Your task to perform on an android device: check google app version Image 0: 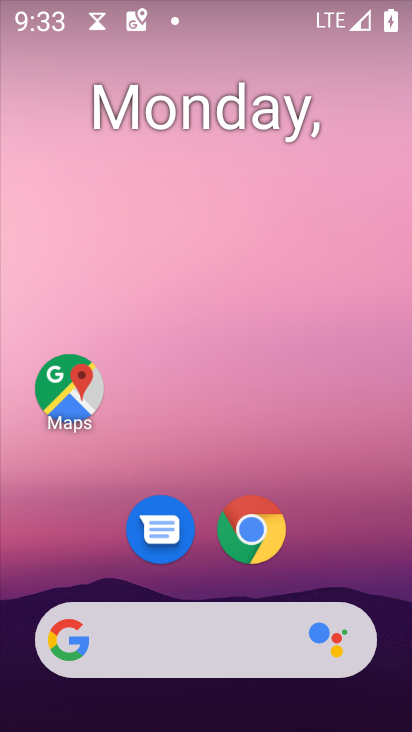
Step 0: drag from (292, 687) to (199, 115)
Your task to perform on an android device: check google app version Image 1: 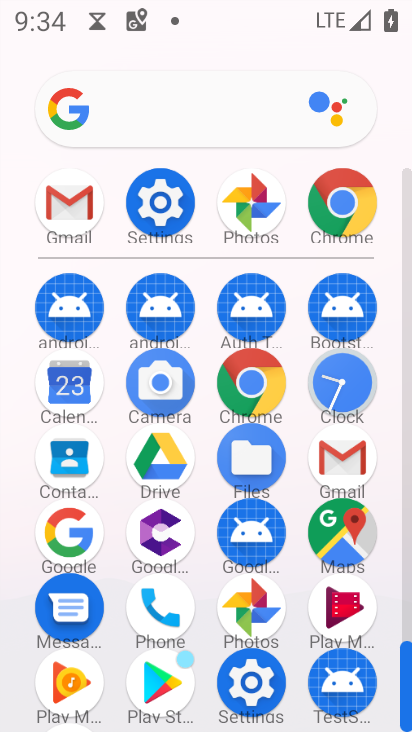
Step 1: click (76, 544)
Your task to perform on an android device: check google app version Image 2: 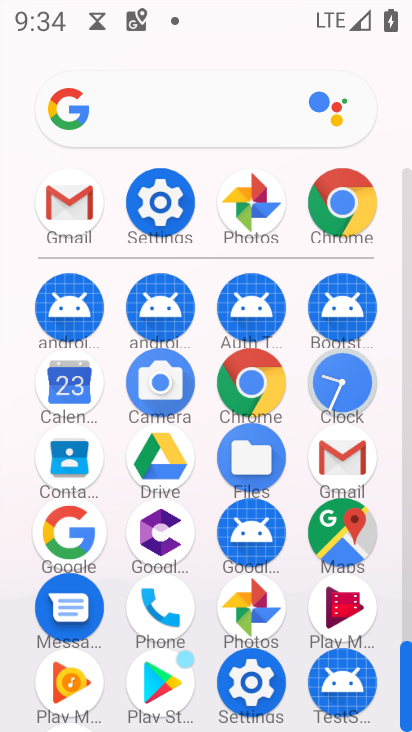
Step 2: click (76, 543)
Your task to perform on an android device: check google app version Image 3: 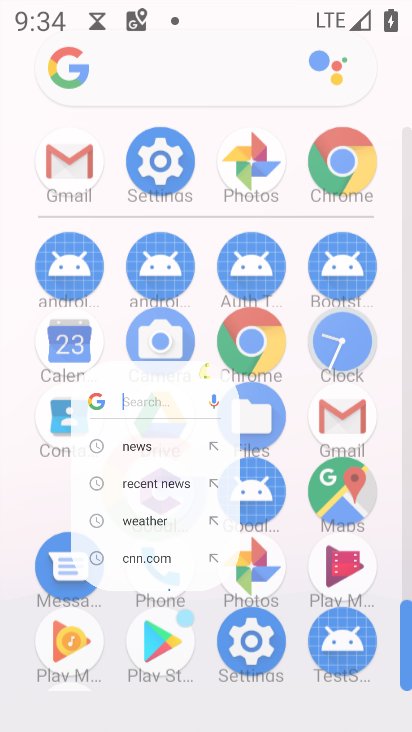
Step 3: click (76, 543)
Your task to perform on an android device: check google app version Image 4: 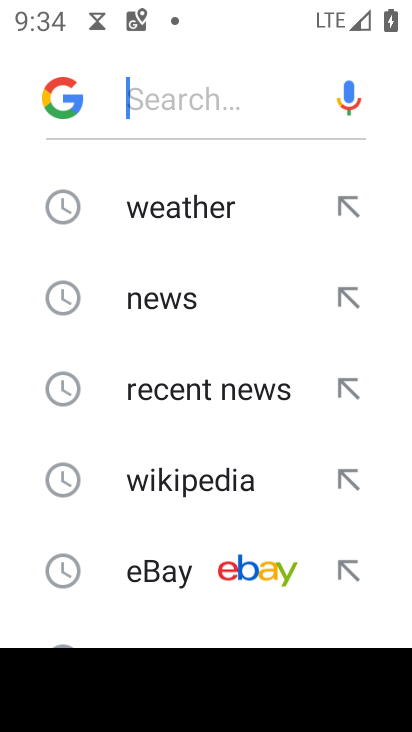
Step 4: press back button
Your task to perform on an android device: check google app version Image 5: 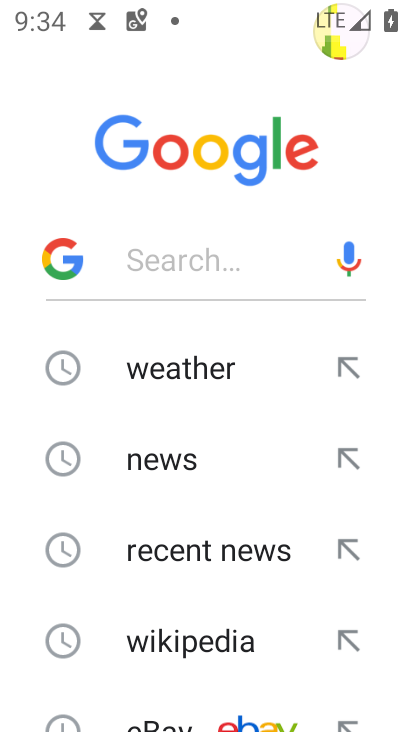
Step 5: press home button
Your task to perform on an android device: check google app version Image 6: 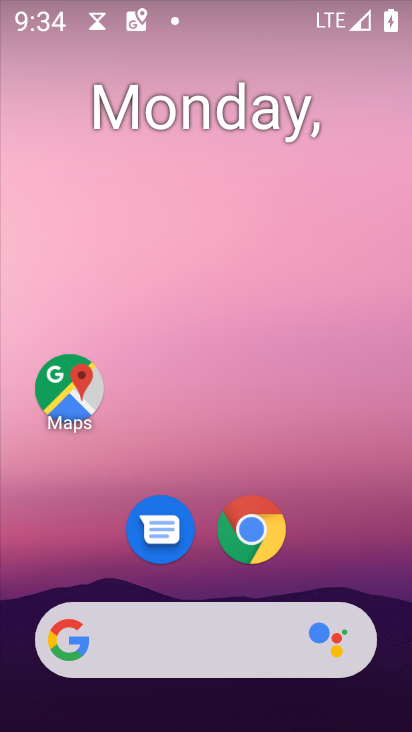
Step 6: drag from (231, 664) to (150, 156)
Your task to perform on an android device: check google app version Image 7: 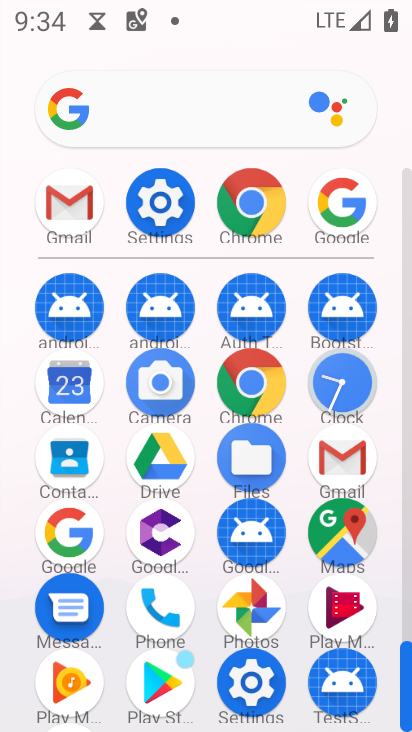
Step 7: click (63, 542)
Your task to perform on an android device: check google app version Image 8: 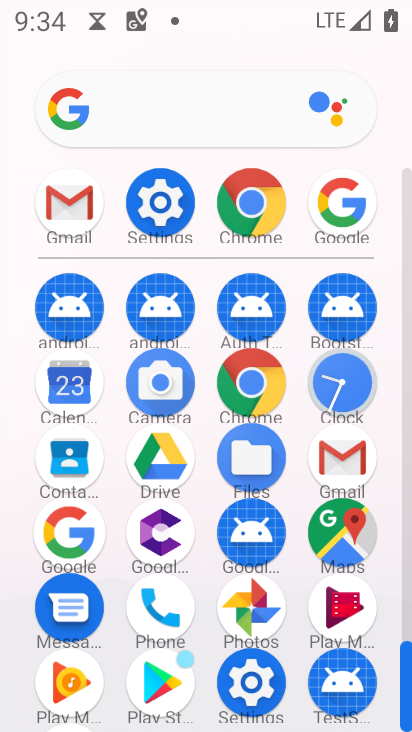
Step 8: click (67, 537)
Your task to perform on an android device: check google app version Image 9: 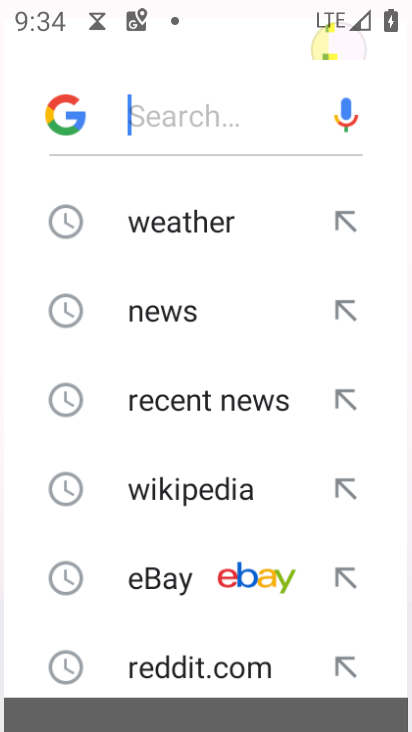
Step 9: click (70, 534)
Your task to perform on an android device: check google app version Image 10: 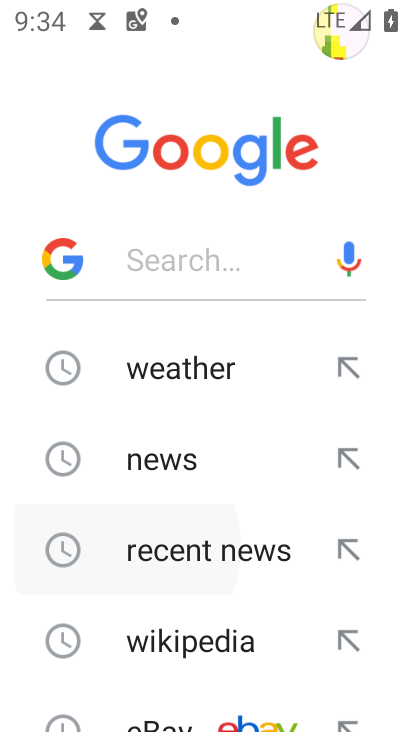
Step 10: click (71, 535)
Your task to perform on an android device: check google app version Image 11: 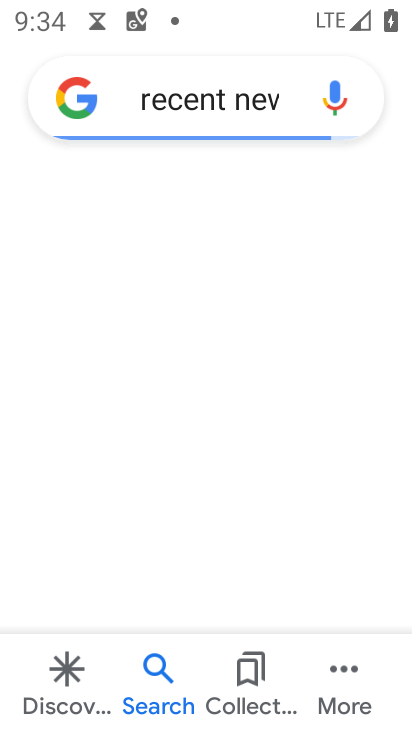
Step 11: click (342, 664)
Your task to perform on an android device: check google app version Image 12: 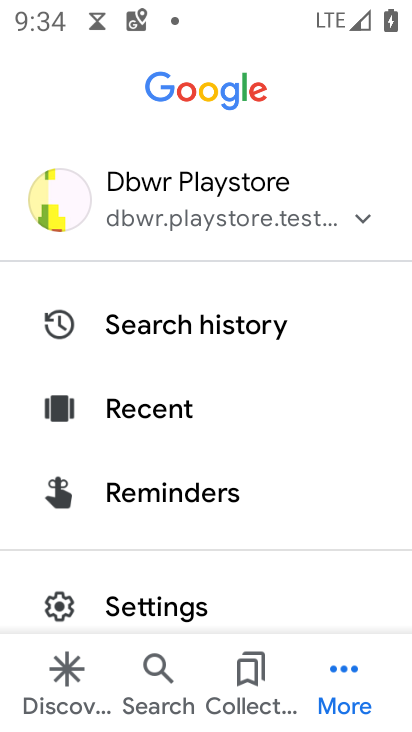
Step 12: click (343, 661)
Your task to perform on an android device: check google app version Image 13: 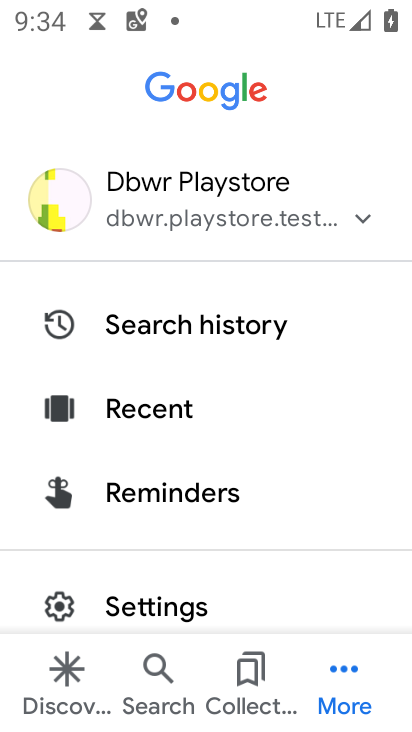
Step 13: drag from (180, 551) to (135, 139)
Your task to perform on an android device: check google app version Image 14: 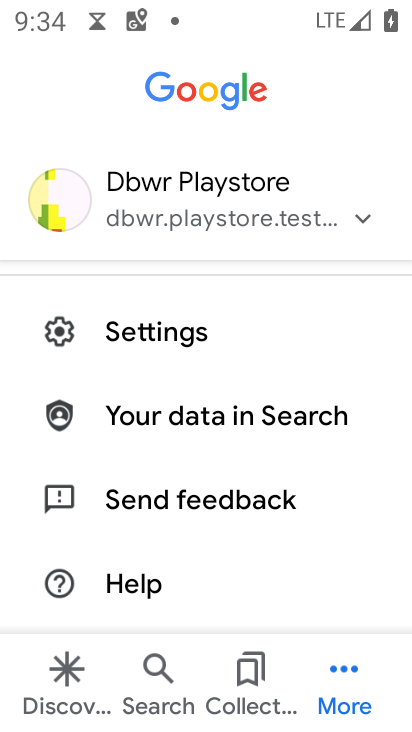
Step 14: drag from (246, 548) to (232, 279)
Your task to perform on an android device: check google app version Image 15: 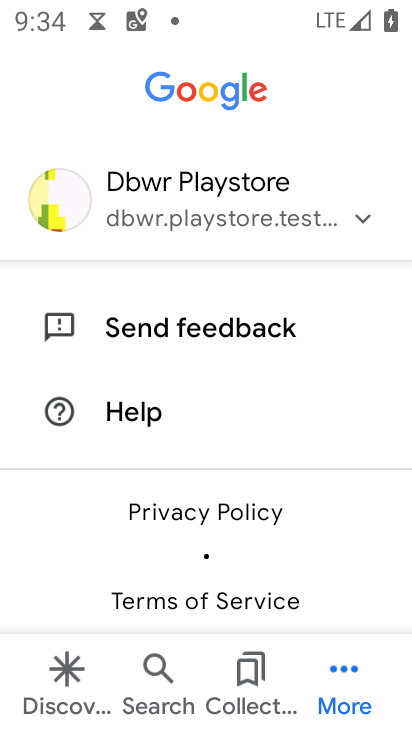
Step 15: drag from (160, 338) to (163, 573)
Your task to perform on an android device: check google app version Image 16: 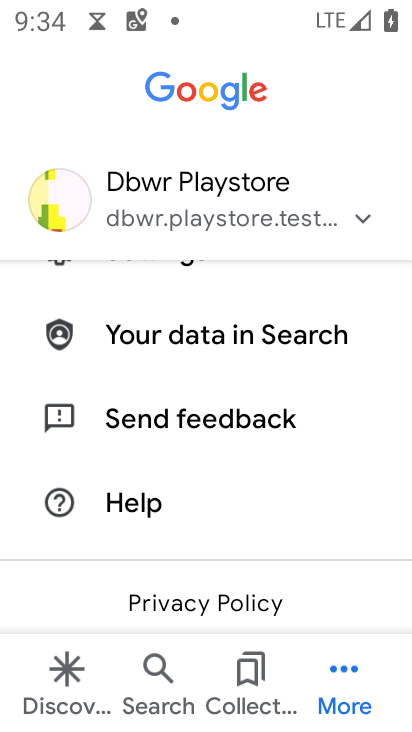
Step 16: drag from (150, 384) to (249, 554)
Your task to perform on an android device: check google app version Image 17: 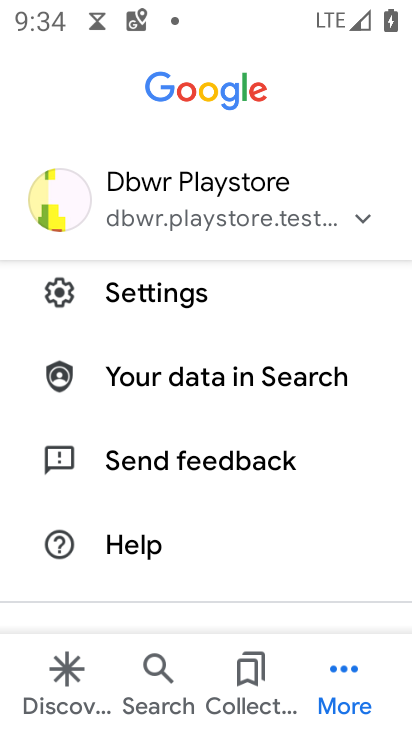
Step 17: drag from (195, 384) to (239, 543)
Your task to perform on an android device: check google app version Image 18: 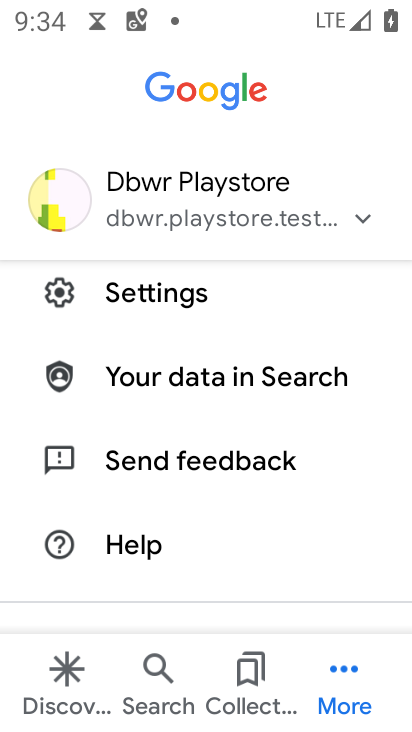
Step 18: click (137, 290)
Your task to perform on an android device: check google app version Image 19: 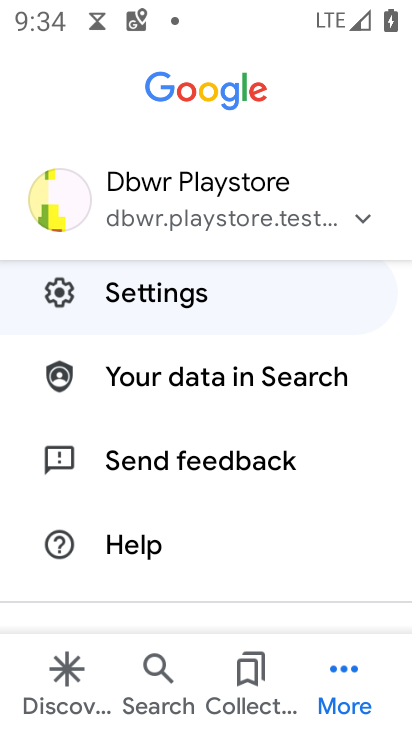
Step 19: click (143, 286)
Your task to perform on an android device: check google app version Image 20: 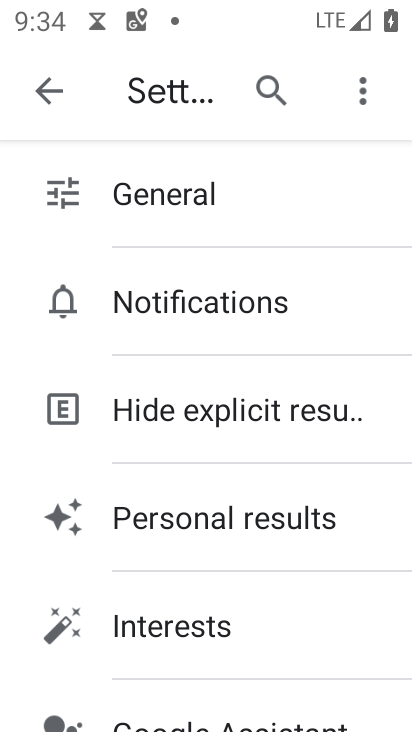
Step 20: drag from (201, 617) to (215, 238)
Your task to perform on an android device: check google app version Image 21: 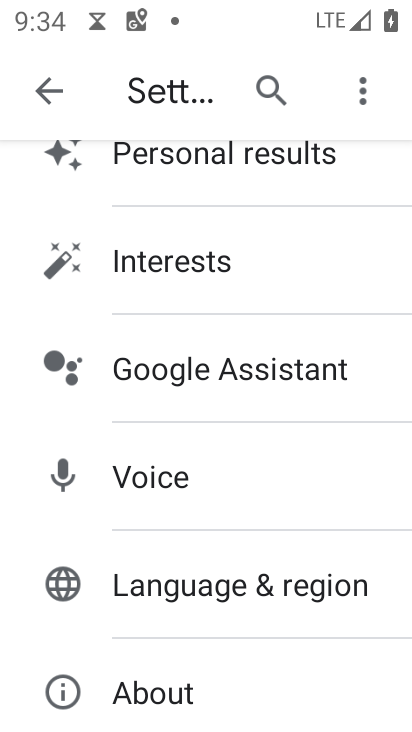
Step 21: drag from (208, 470) to (266, 188)
Your task to perform on an android device: check google app version Image 22: 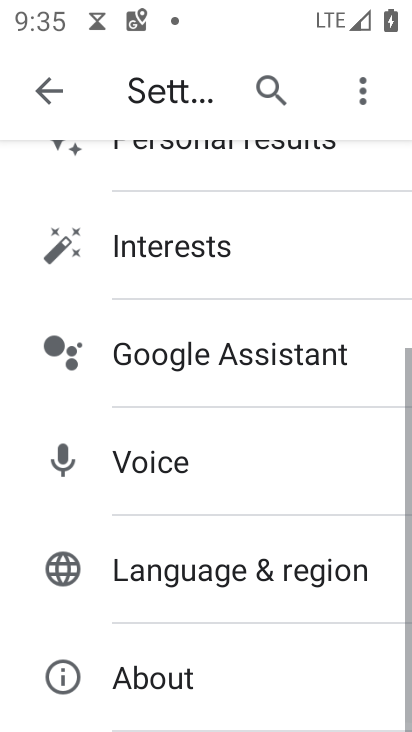
Step 22: drag from (226, 553) to (255, 258)
Your task to perform on an android device: check google app version Image 23: 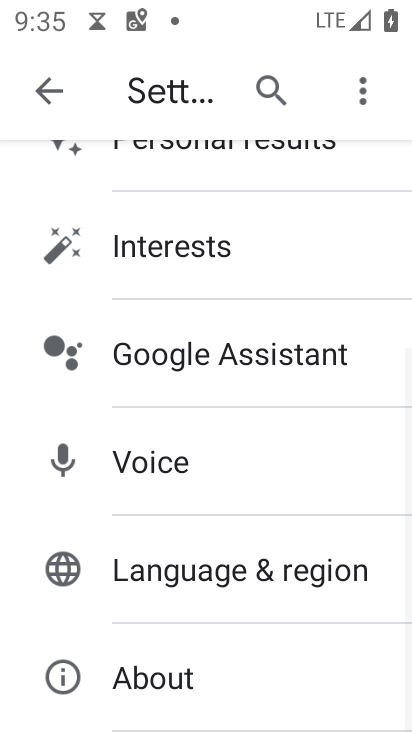
Step 23: click (190, 664)
Your task to perform on an android device: check google app version Image 24: 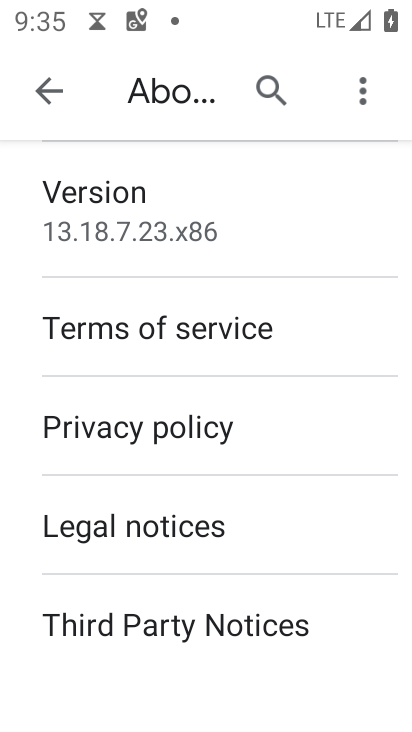
Step 24: task complete